Your task to perform on an android device: check data usage Image 0: 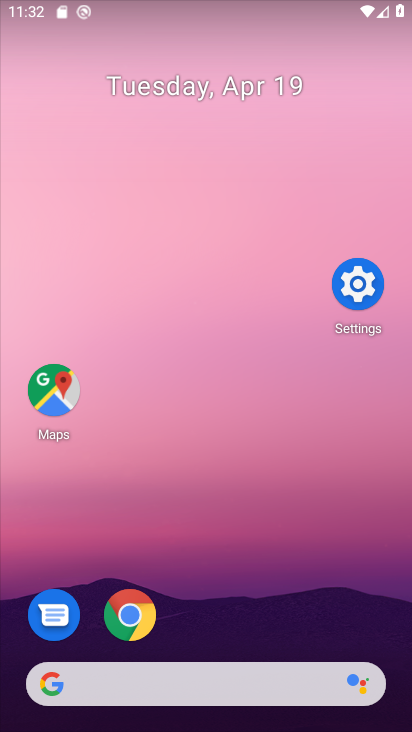
Step 0: drag from (186, 631) to (215, 173)
Your task to perform on an android device: check data usage Image 1: 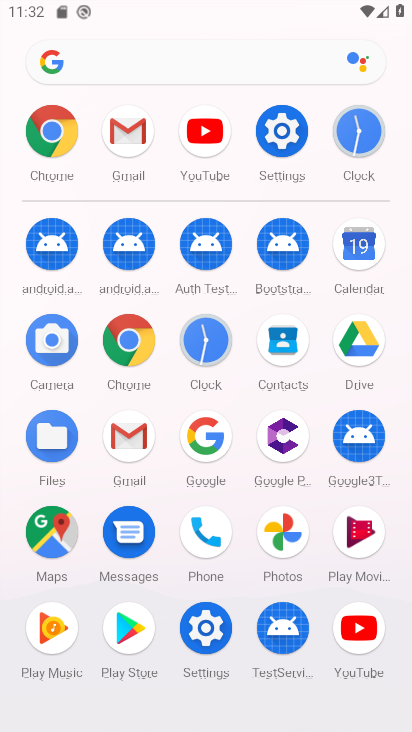
Step 1: click (200, 628)
Your task to perform on an android device: check data usage Image 2: 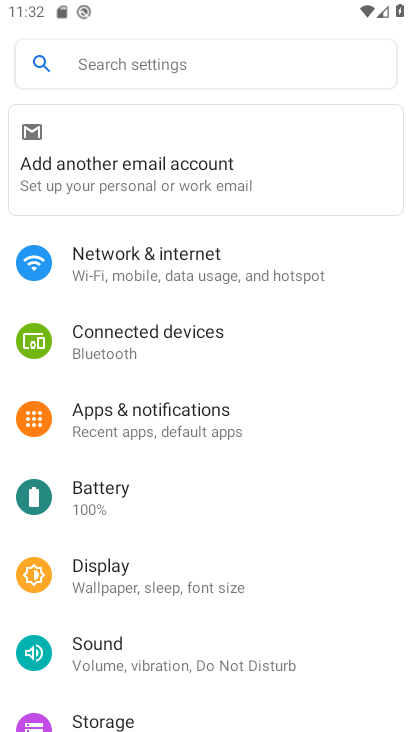
Step 2: click (116, 257)
Your task to perform on an android device: check data usage Image 3: 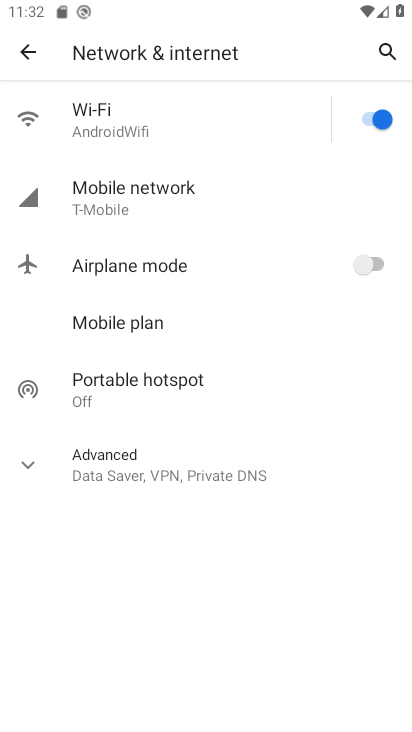
Step 3: click (146, 204)
Your task to perform on an android device: check data usage Image 4: 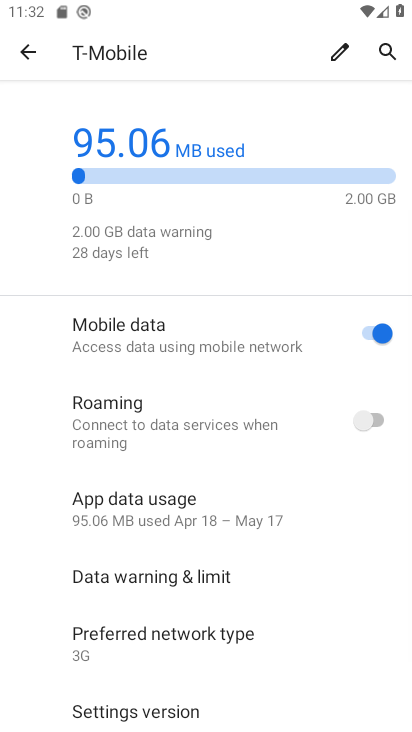
Step 4: task complete